Your task to perform on an android device: turn on the 12-hour format for clock Image 0: 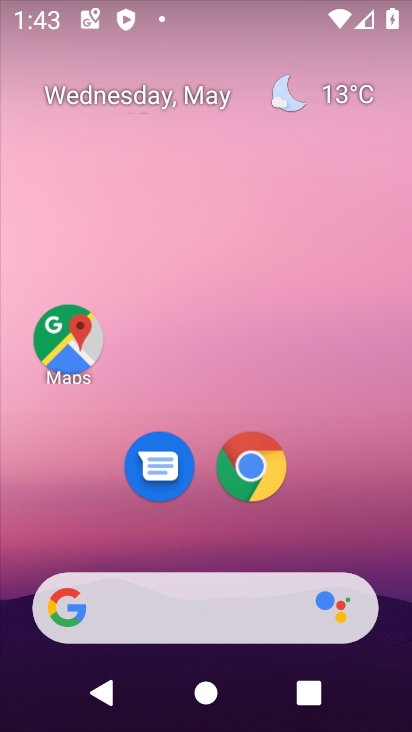
Step 0: press home button
Your task to perform on an android device: turn on the 12-hour format for clock Image 1: 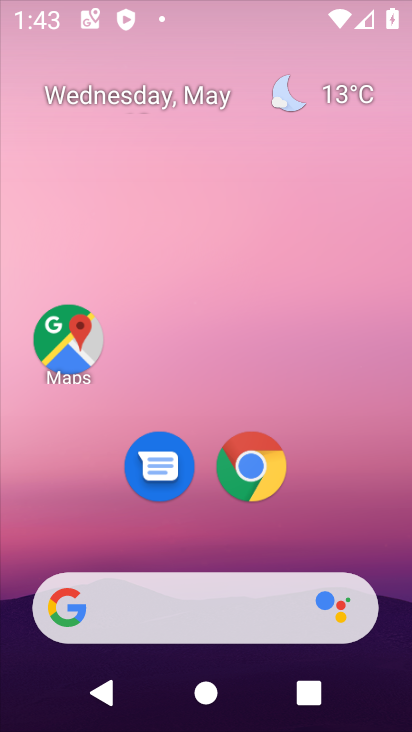
Step 1: drag from (356, 509) to (306, 119)
Your task to perform on an android device: turn on the 12-hour format for clock Image 2: 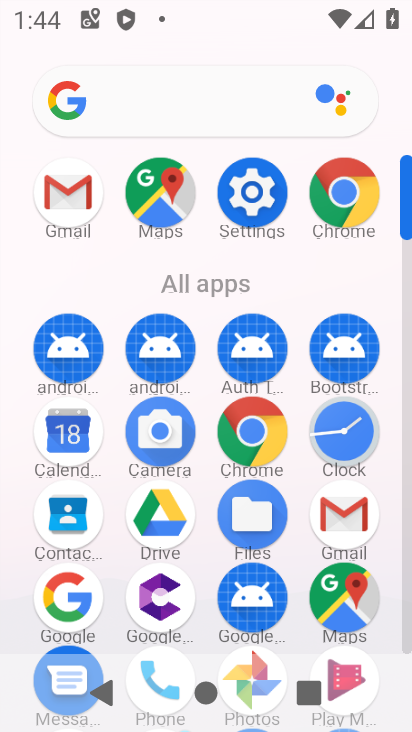
Step 2: click (329, 435)
Your task to perform on an android device: turn on the 12-hour format for clock Image 3: 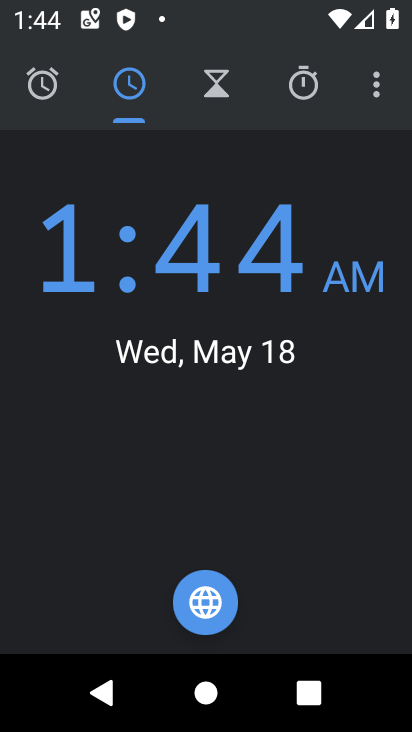
Step 3: drag from (362, 82) to (236, 179)
Your task to perform on an android device: turn on the 12-hour format for clock Image 4: 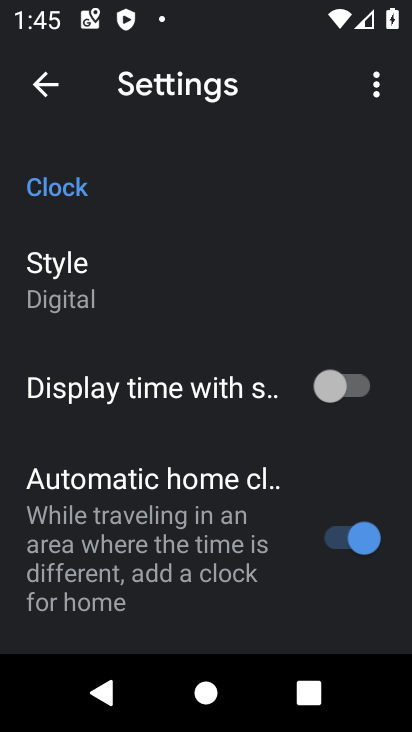
Step 4: drag from (237, 501) to (193, 167)
Your task to perform on an android device: turn on the 12-hour format for clock Image 5: 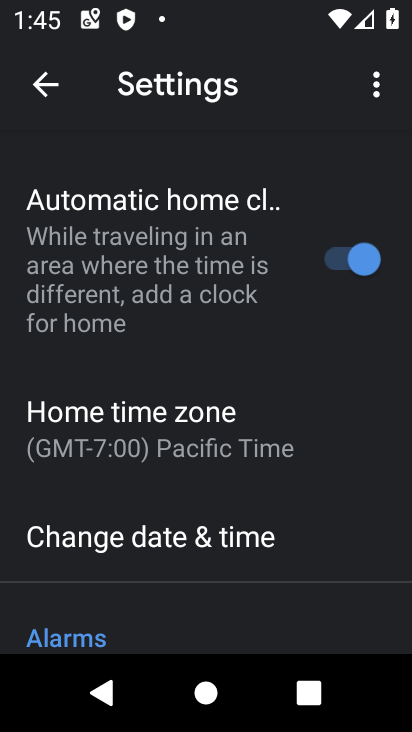
Step 5: click (129, 537)
Your task to perform on an android device: turn on the 12-hour format for clock Image 6: 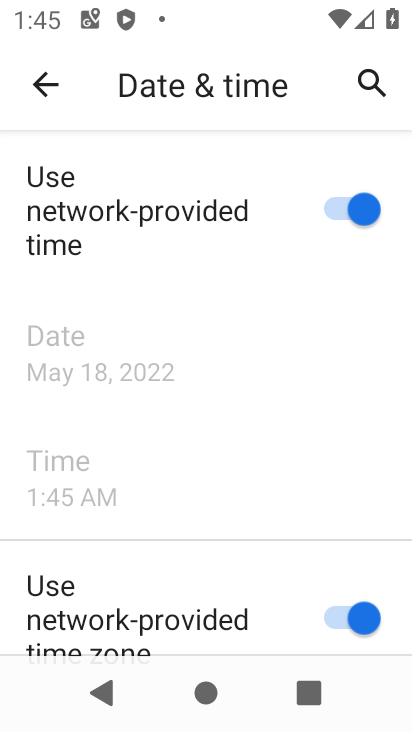
Step 6: drag from (210, 559) to (189, 129)
Your task to perform on an android device: turn on the 12-hour format for clock Image 7: 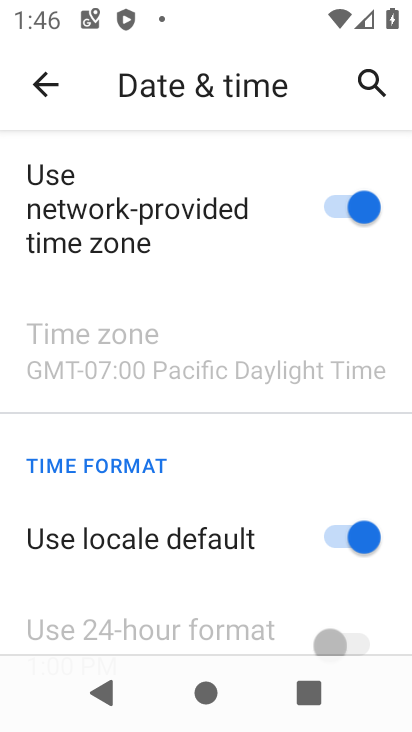
Step 7: drag from (196, 576) to (210, 302)
Your task to perform on an android device: turn on the 12-hour format for clock Image 8: 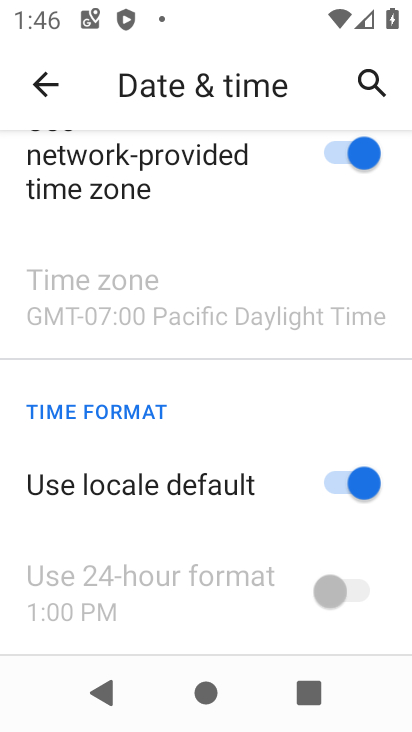
Step 8: click (348, 533)
Your task to perform on an android device: turn on the 12-hour format for clock Image 9: 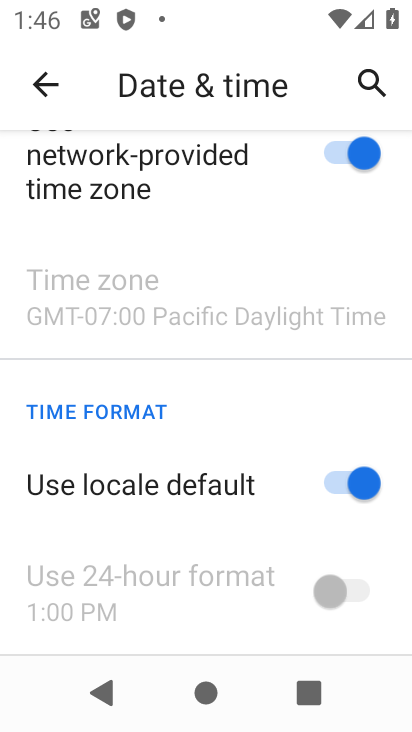
Step 9: click (336, 594)
Your task to perform on an android device: turn on the 12-hour format for clock Image 10: 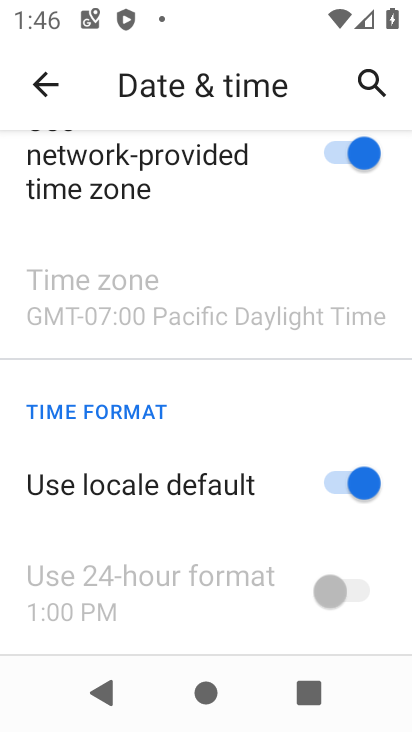
Step 10: click (361, 491)
Your task to perform on an android device: turn on the 12-hour format for clock Image 11: 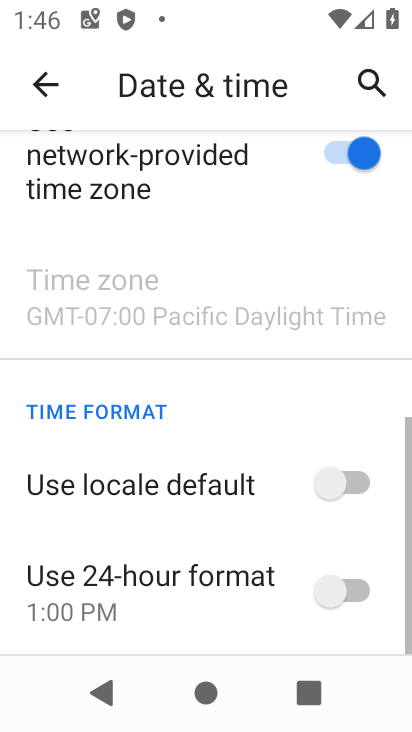
Step 11: click (338, 597)
Your task to perform on an android device: turn on the 12-hour format for clock Image 12: 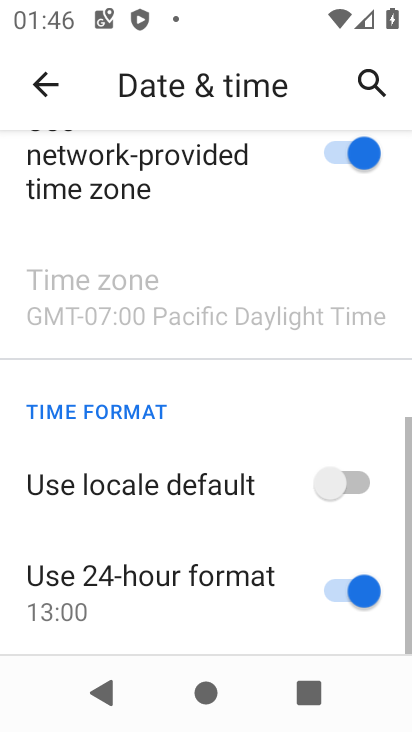
Step 12: task complete